Your task to perform on an android device: Add "bose soundlink mini" to the cart on walmart, then select checkout. Image 0: 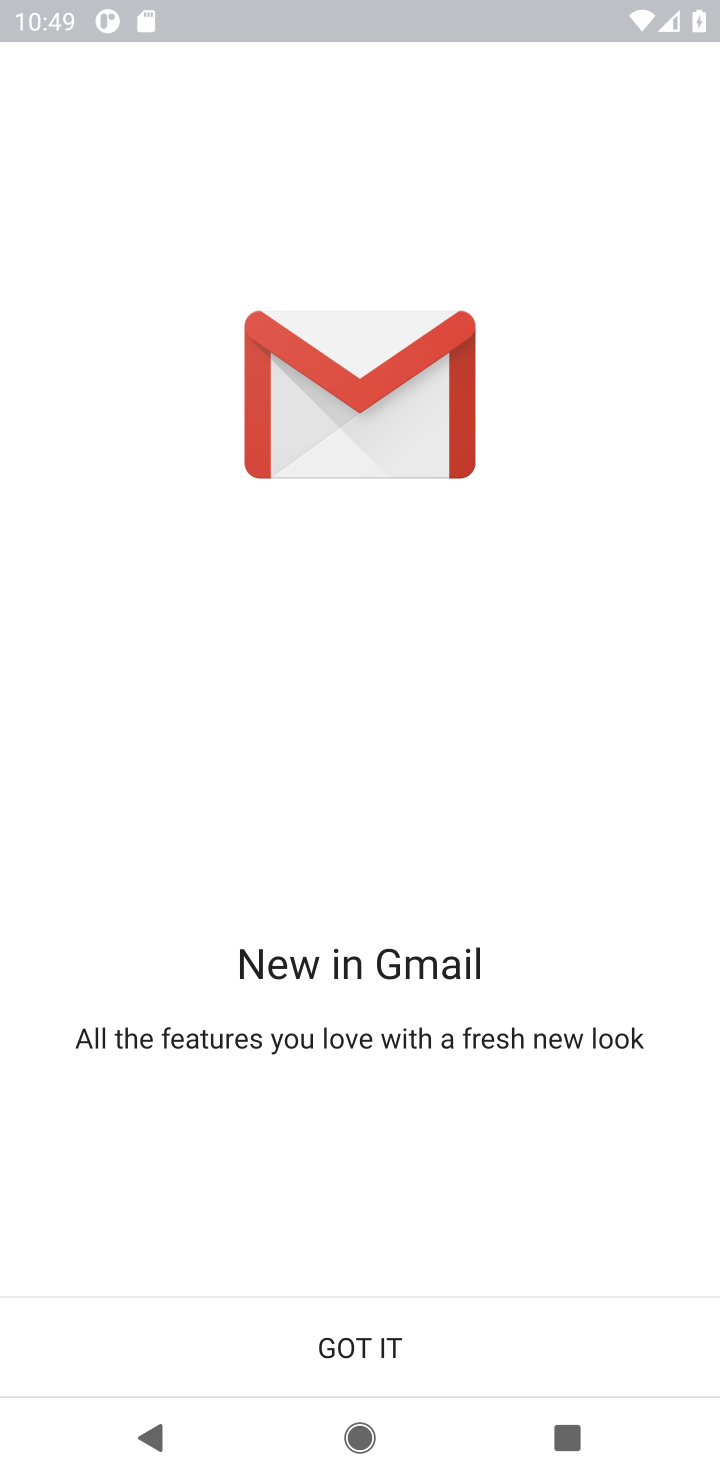
Step 0: press home button
Your task to perform on an android device: Add "bose soundlink mini" to the cart on walmart, then select checkout. Image 1: 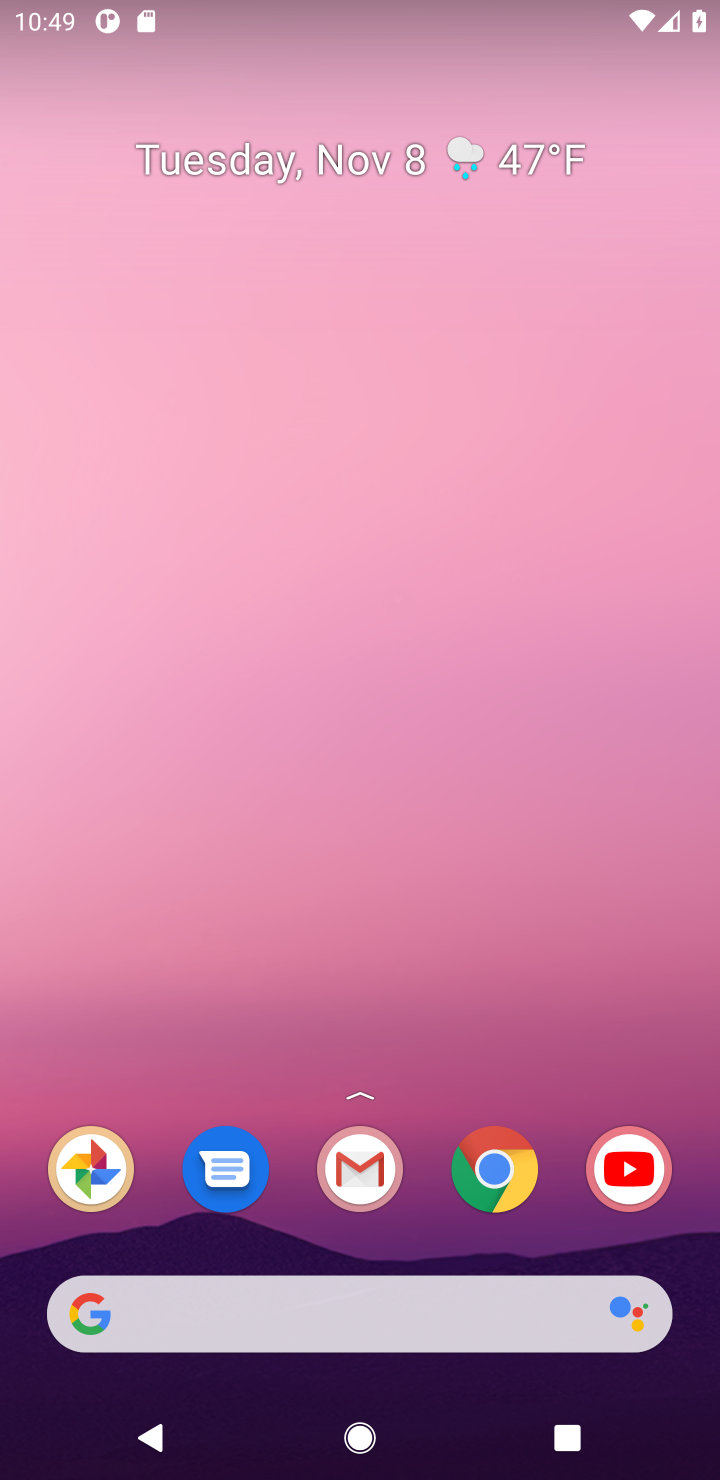
Step 1: click (506, 1180)
Your task to perform on an android device: Add "bose soundlink mini" to the cart on walmart, then select checkout. Image 2: 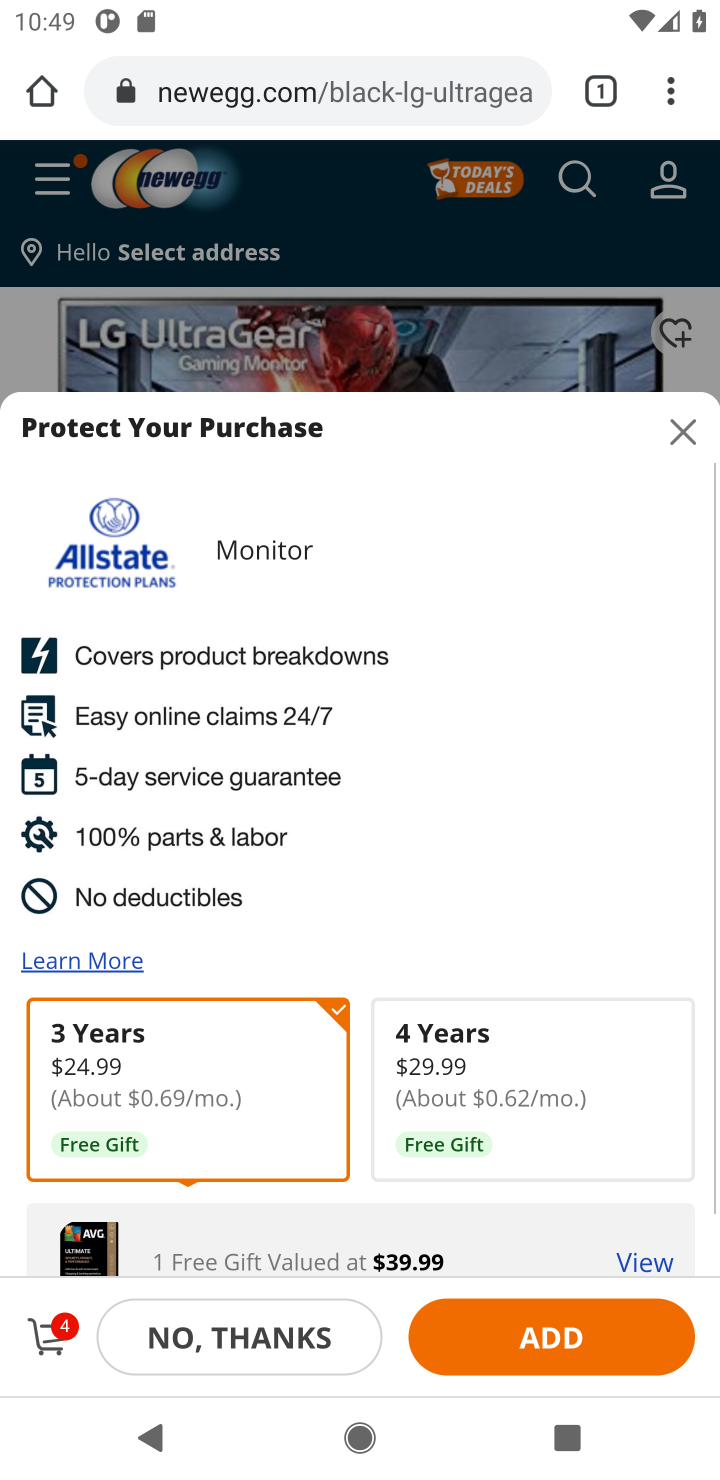
Step 2: click (451, 96)
Your task to perform on an android device: Add "bose soundlink mini" to the cart on walmart, then select checkout. Image 3: 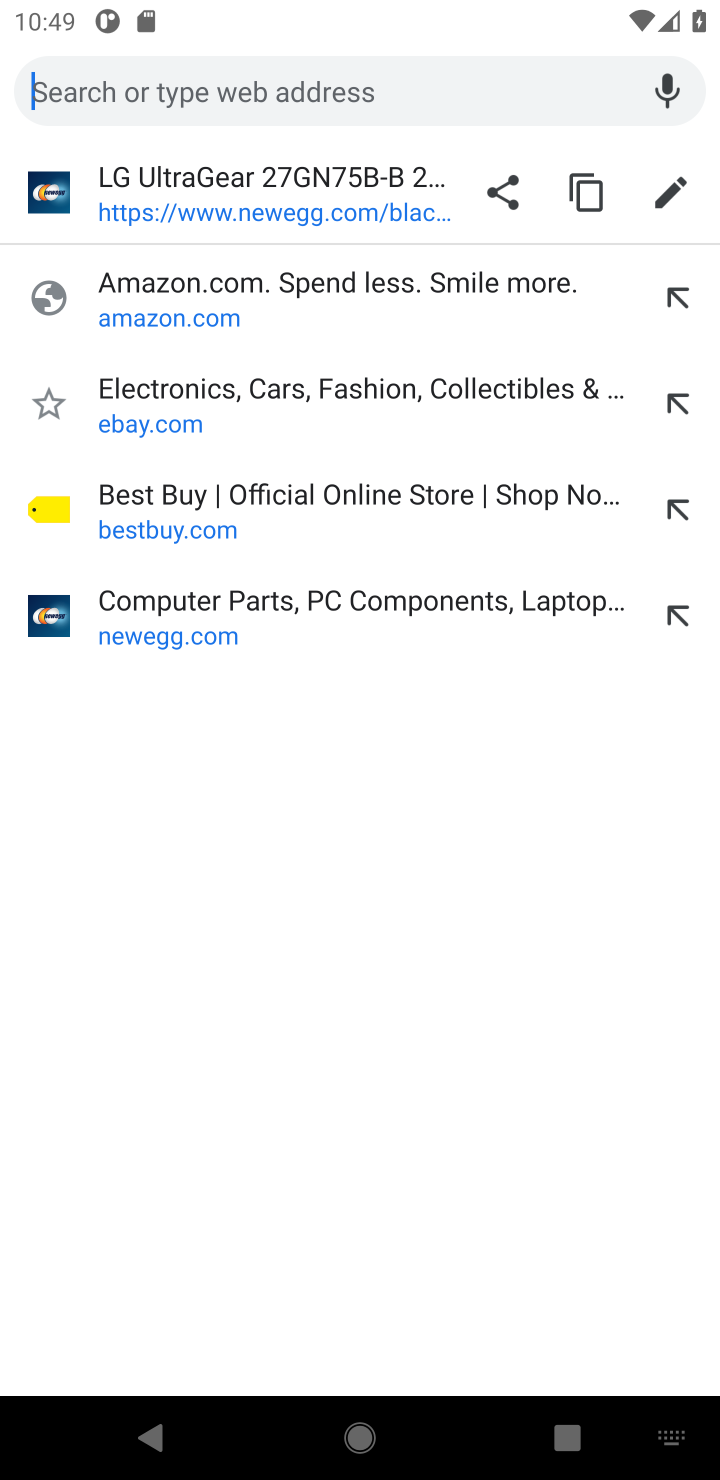
Step 3: press enter
Your task to perform on an android device: Add "bose soundlink mini" to the cart on walmart, then select checkout. Image 4: 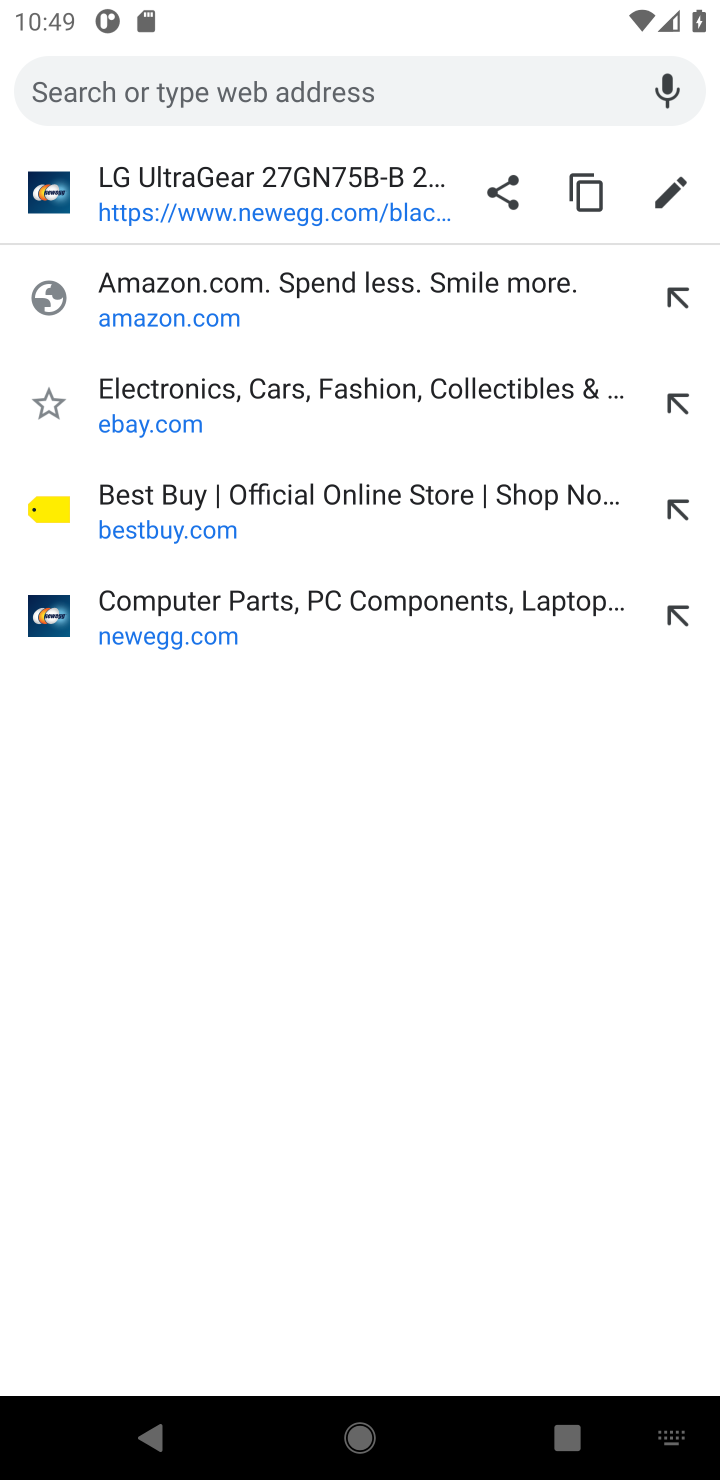
Step 4: type "walmart"
Your task to perform on an android device: Add "bose soundlink mini" to the cart on walmart, then select checkout. Image 5: 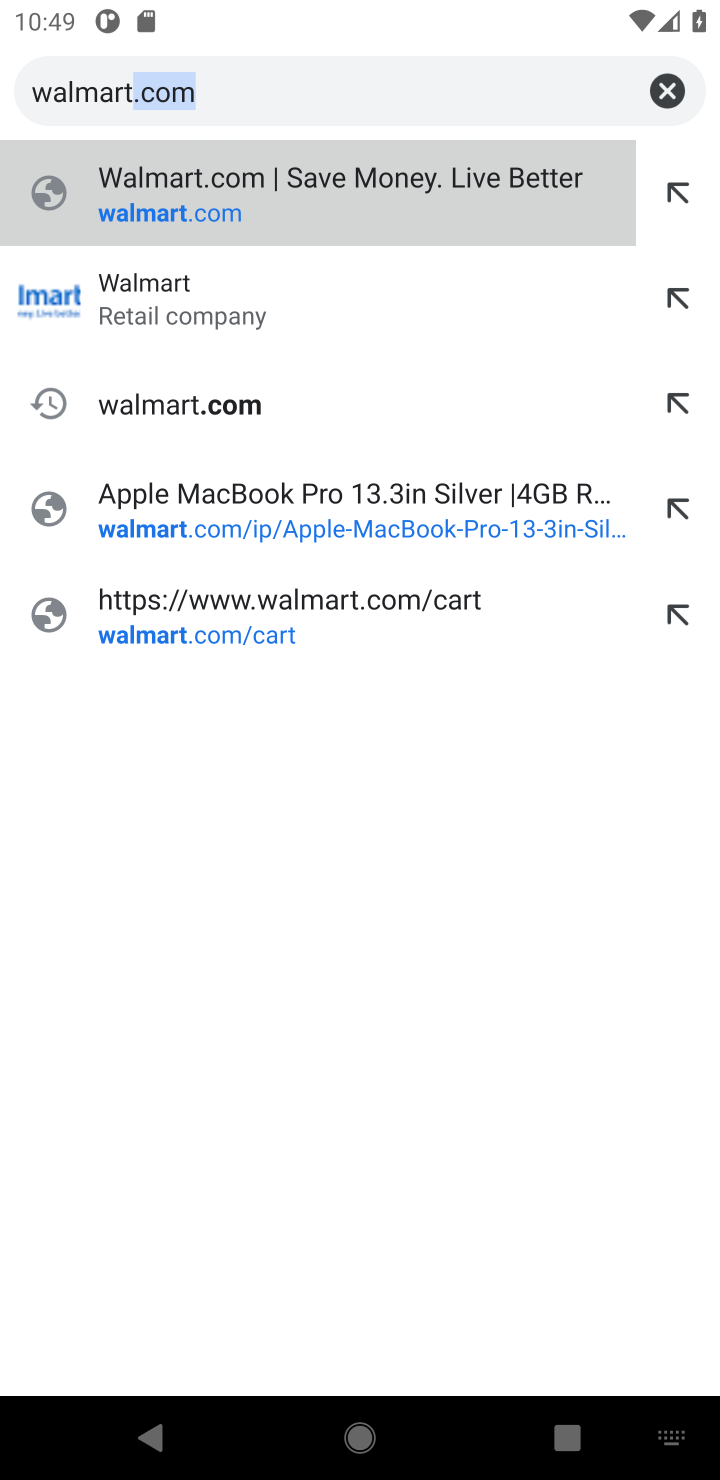
Step 5: click (485, 87)
Your task to perform on an android device: Add "bose soundlink mini" to the cart on walmart, then select checkout. Image 6: 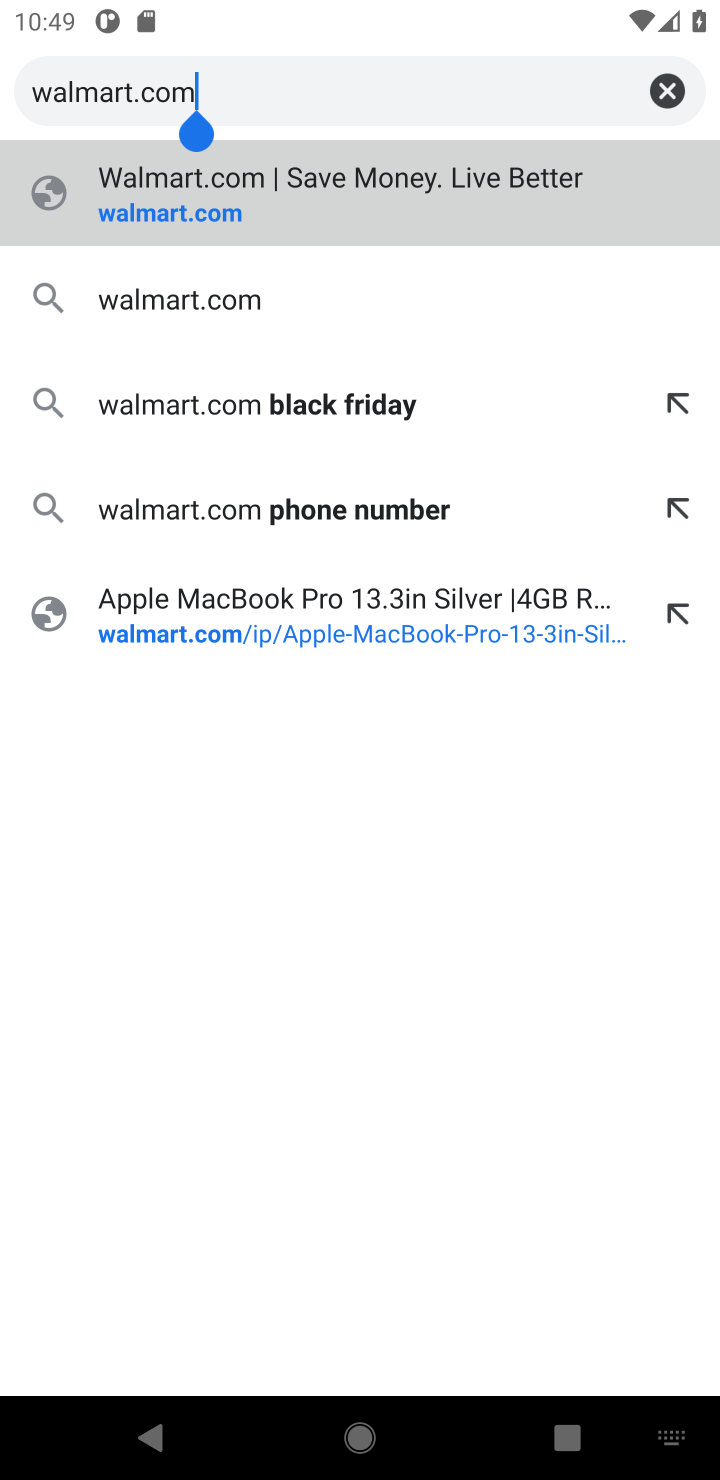
Step 6: click (204, 291)
Your task to perform on an android device: Add "bose soundlink mini" to the cart on walmart, then select checkout. Image 7: 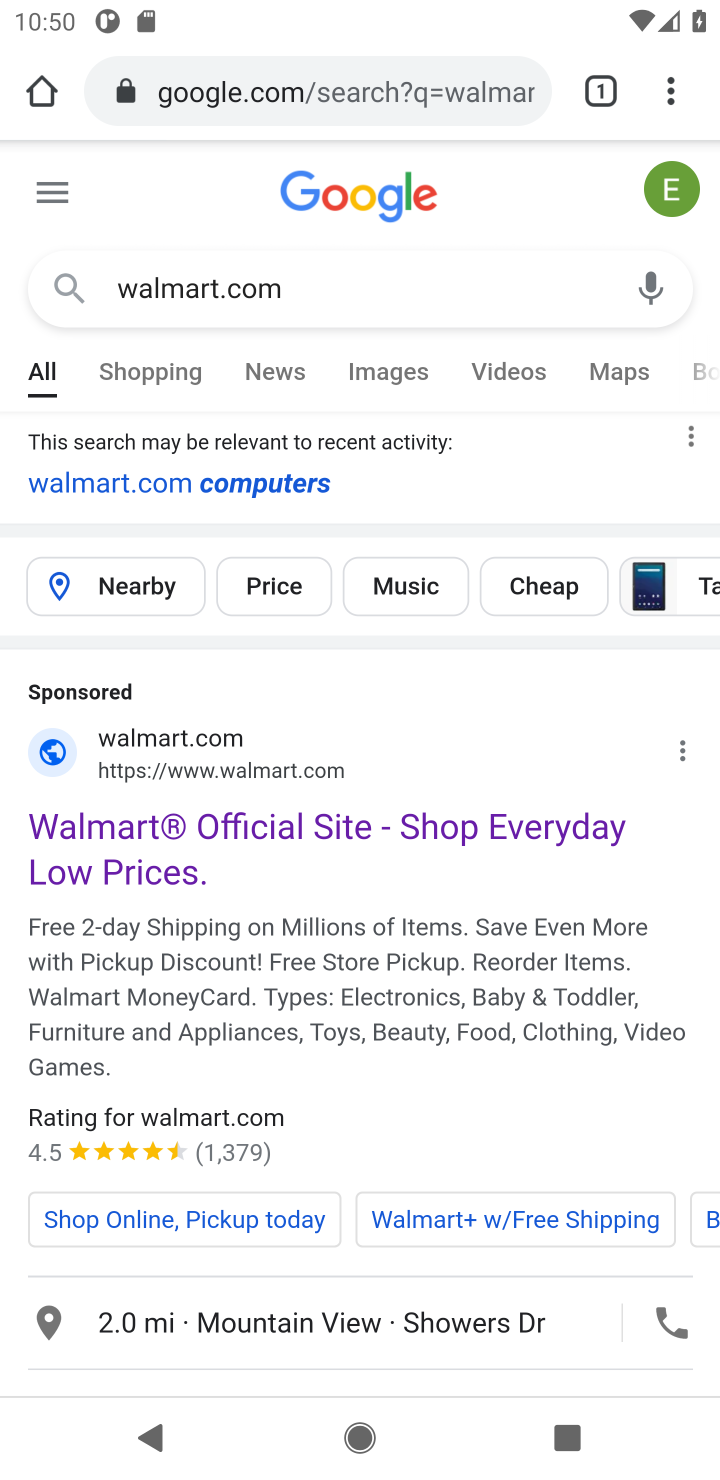
Step 7: click (284, 766)
Your task to perform on an android device: Add "bose soundlink mini" to the cart on walmart, then select checkout. Image 8: 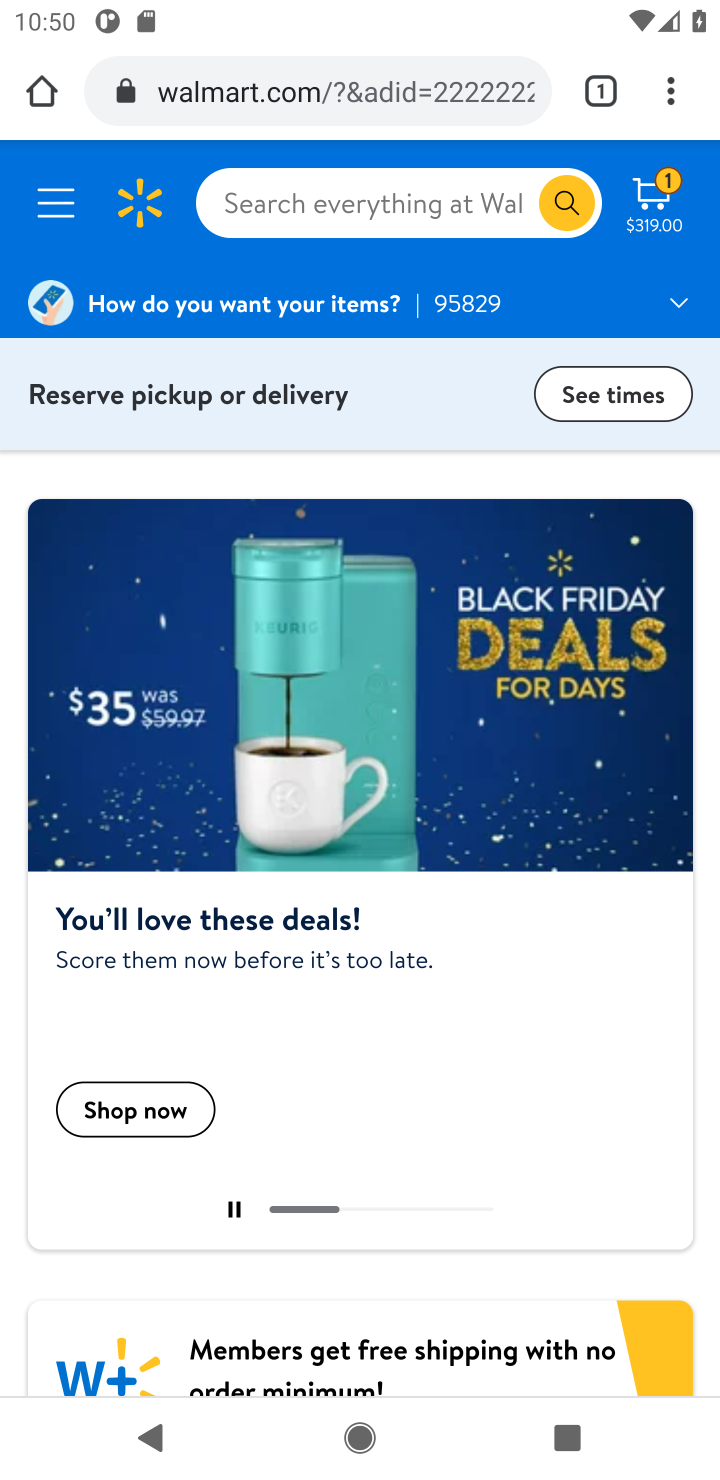
Step 8: click (411, 203)
Your task to perform on an android device: Add "bose soundlink mini" to the cart on walmart, then select checkout. Image 9: 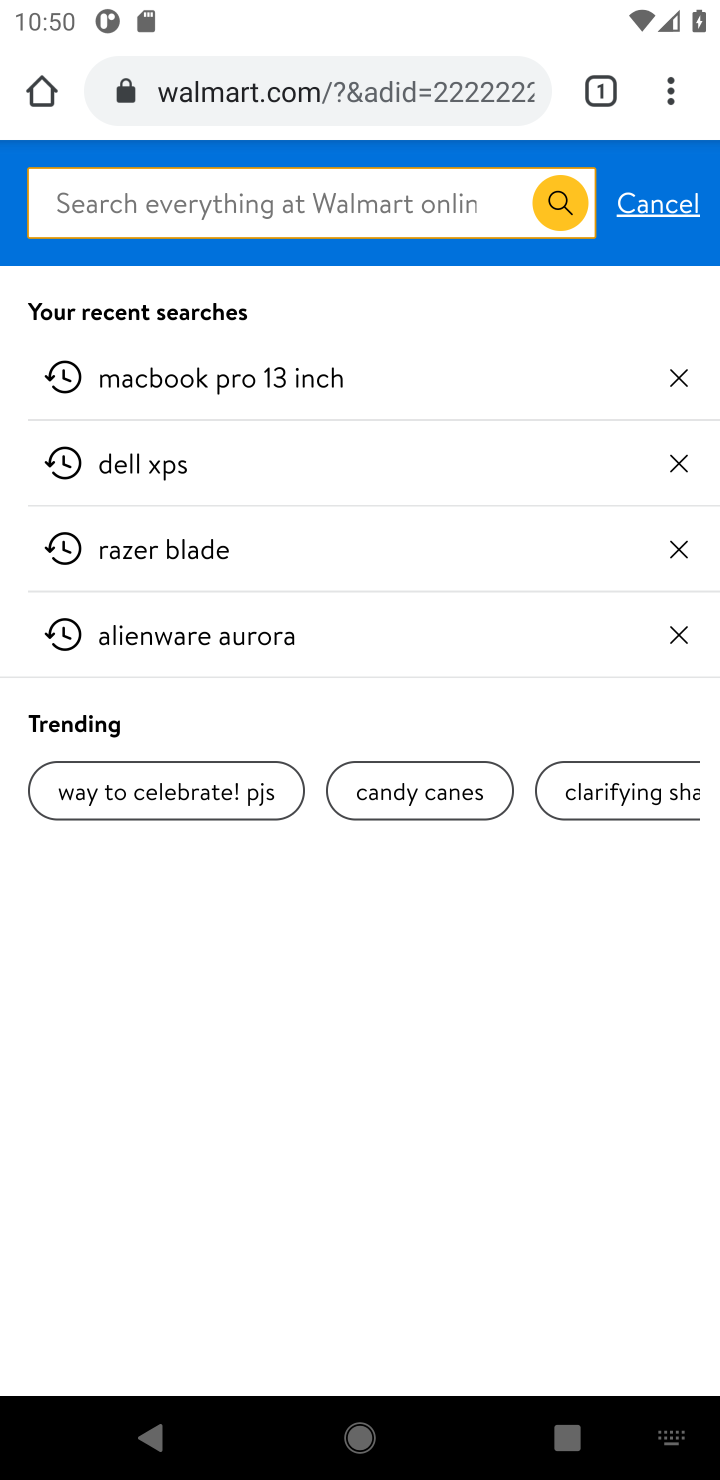
Step 9: type "bose soundlink mini"
Your task to perform on an android device: Add "bose soundlink mini" to the cart on walmart, then select checkout. Image 10: 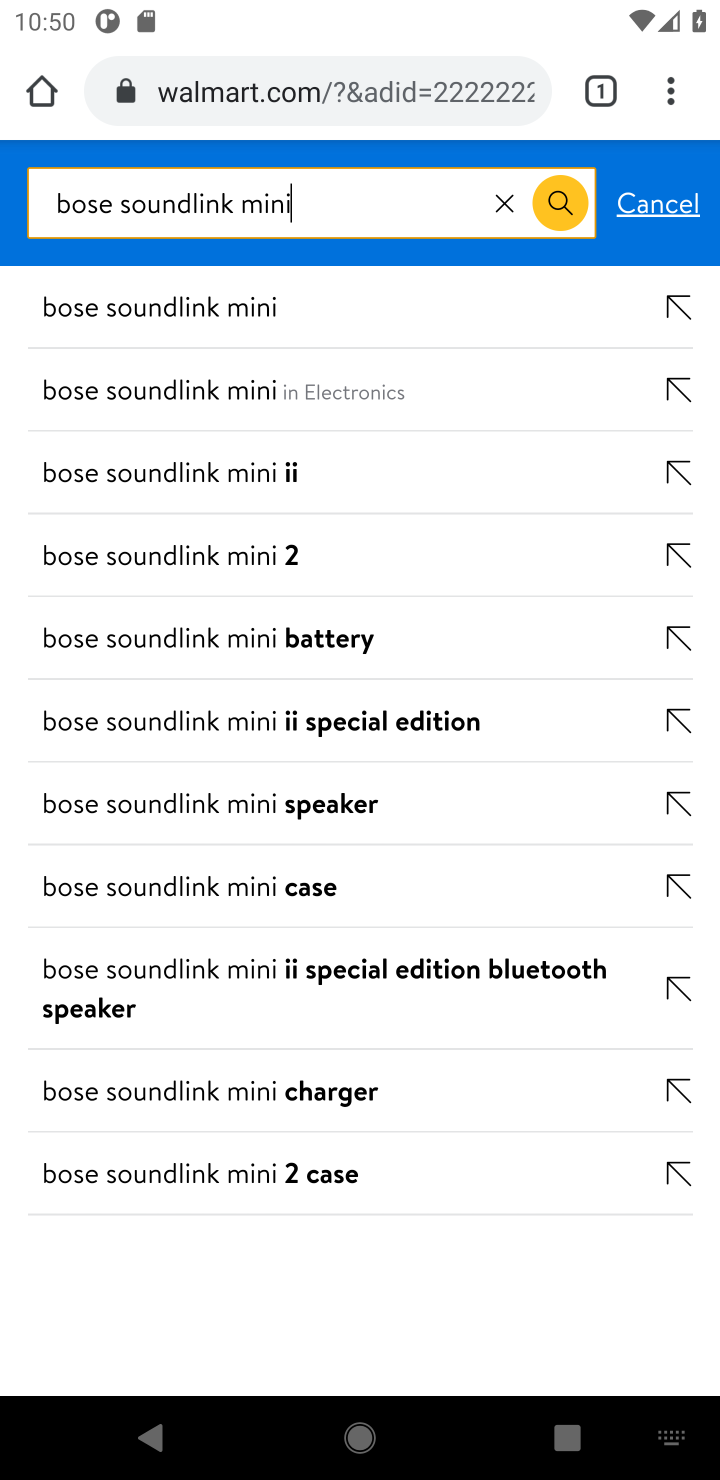
Step 10: click (259, 307)
Your task to perform on an android device: Add "bose soundlink mini" to the cart on walmart, then select checkout. Image 11: 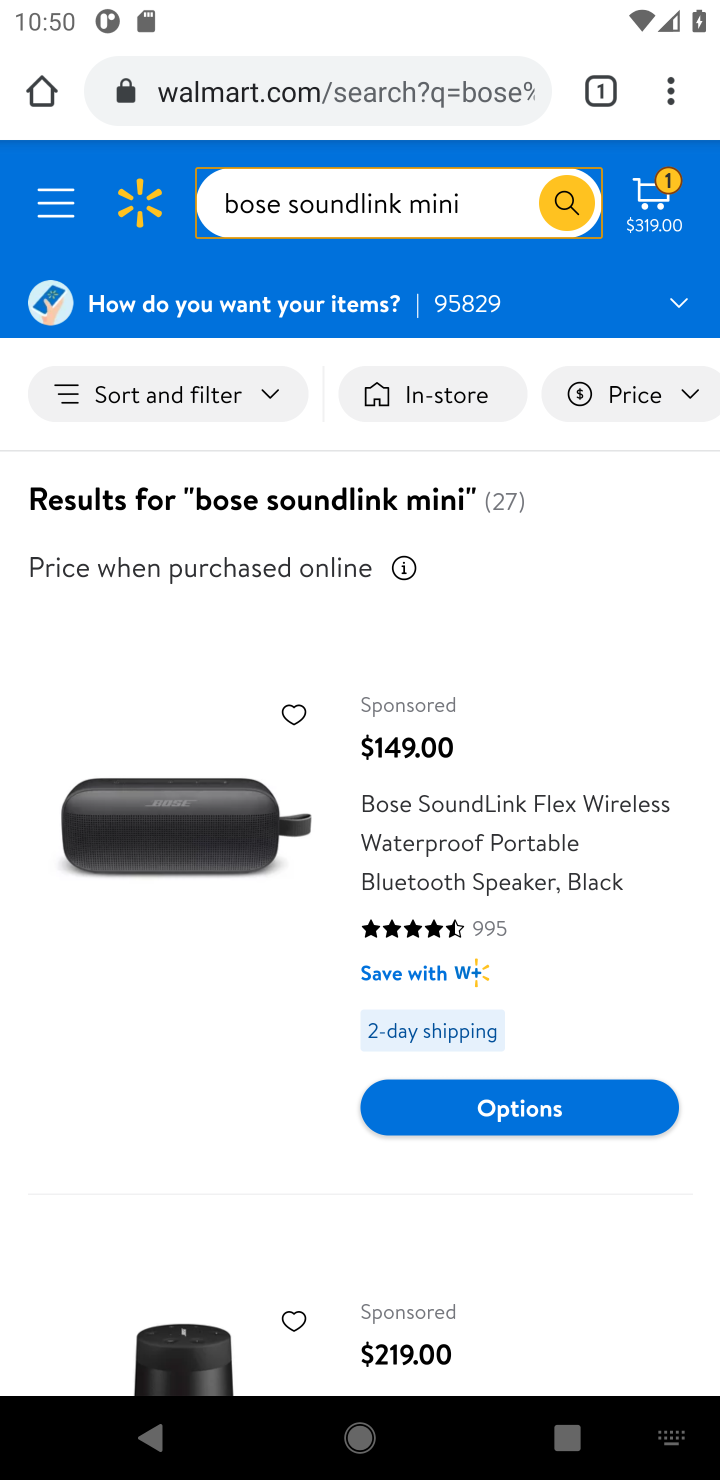
Step 11: task complete